Your task to perform on an android device: Open maps Image 0: 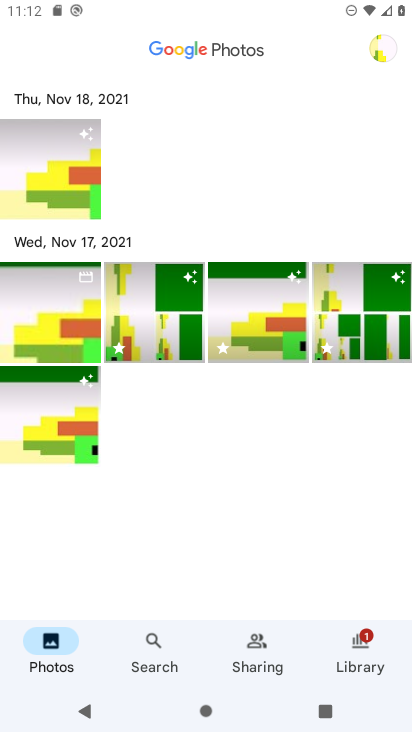
Step 0: press home button
Your task to perform on an android device: Open maps Image 1: 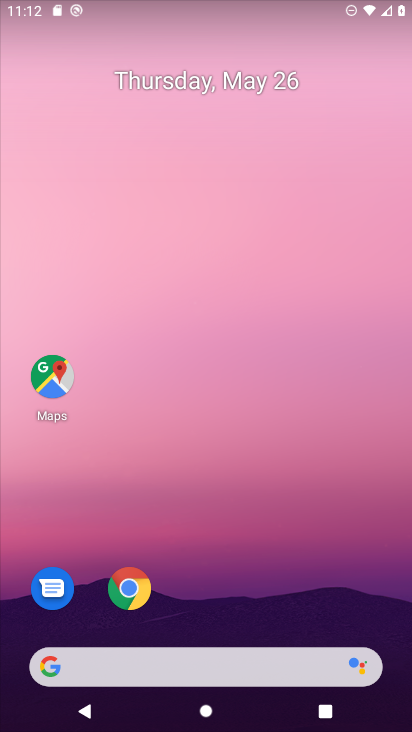
Step 1: click (52, 374)
Your task to perform on an android device: Open maps Image 2: 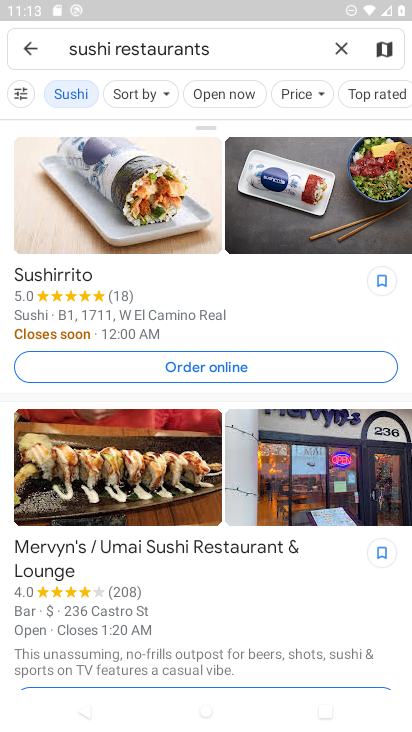
Step 2: click (341, 48)
Your task to perform on an android device: Open maps Image 3: 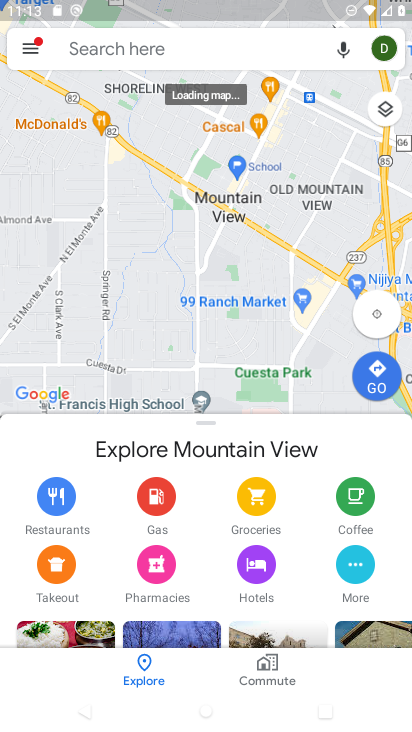
Step 3: task complete